Your task to perform on an android device: Go to Reddit.com Image 0: 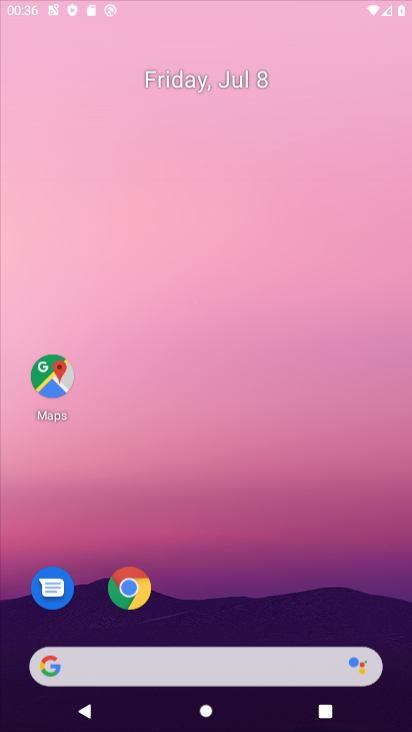
Step 0: click (393, 219)
Your task to perform on an android device: Go to Reddit.com Image 1: 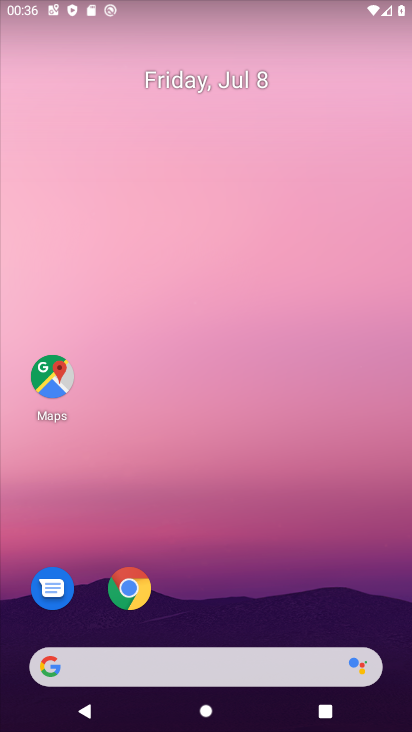
Step 1: drag from (186, 615) to (254, 129)
Your task to perform on an android device: Go to Reddit.com Image 2: 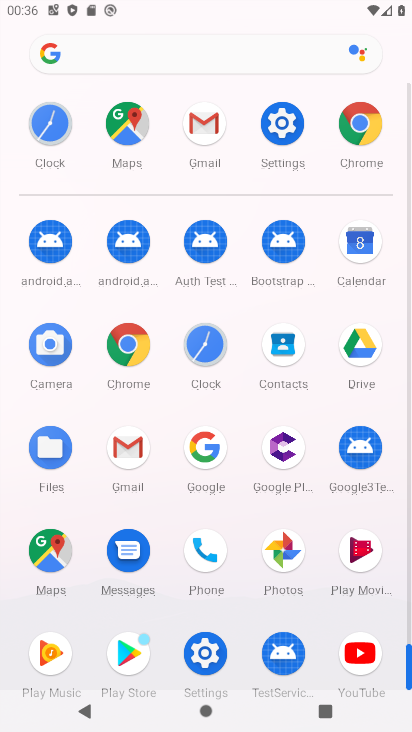
Step 2: click (360, 122)
Your task to perform on an android device: Go to Reddit.com Image 3: 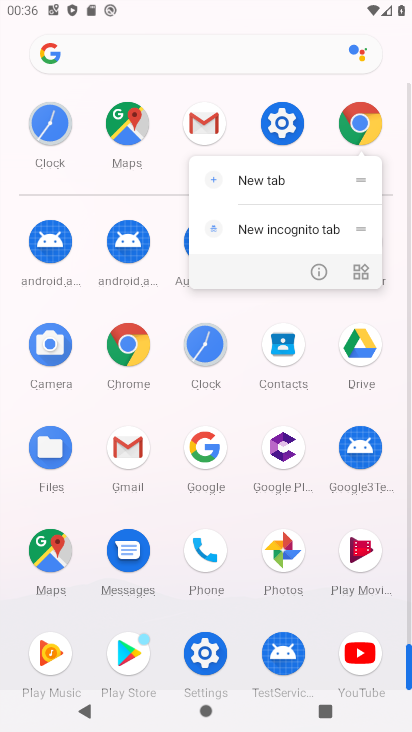
Step 3: click (316, 268)
Your task to perform on an android device: Go to Reddit.com Image 4: 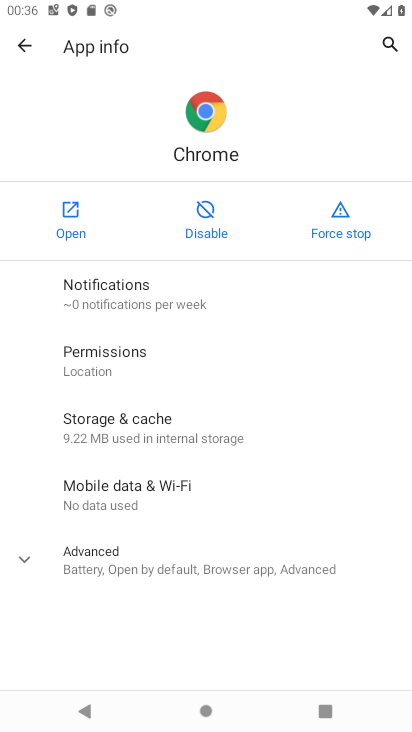
Step 4: click (72, 232)
Your task to perform on an android device: Go to Reddit.com Image 5: 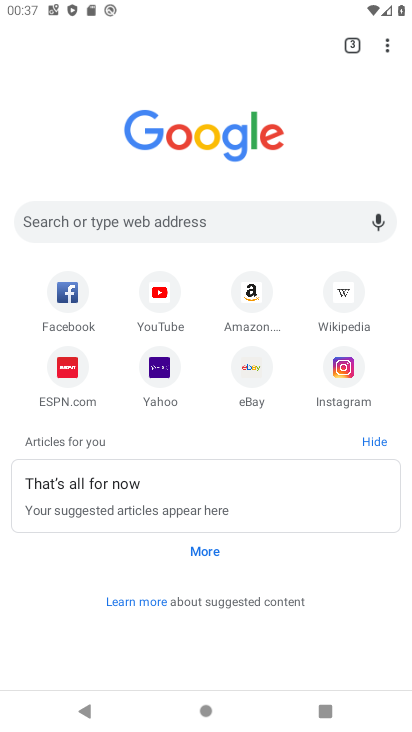
Step 5: click (131, 241)
Your task to perform on an android device: Go to Reddit.com Image 6: 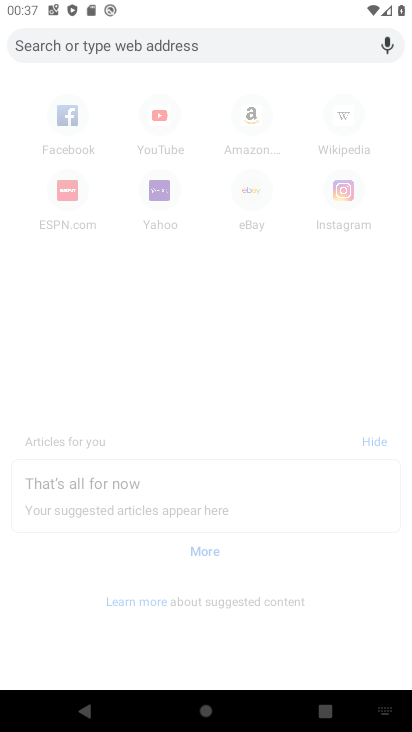
Step 6: type "Reddit.com"
Your task to perform on an android device: Go to Reddit.com Image 7: 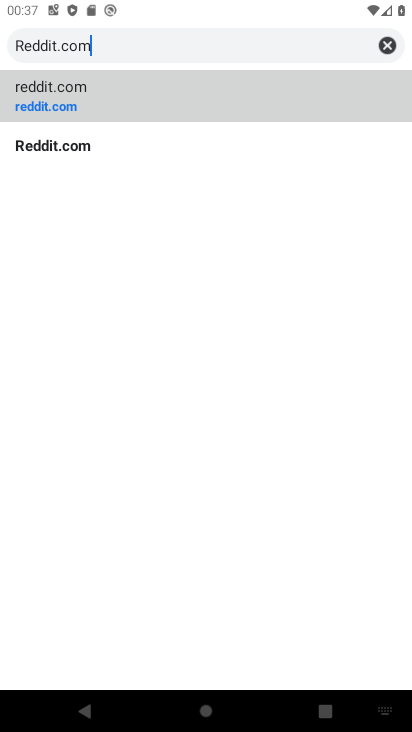
Step 7: type ""
Your task to perform on an android device: Go to Reddit.com Image 8: 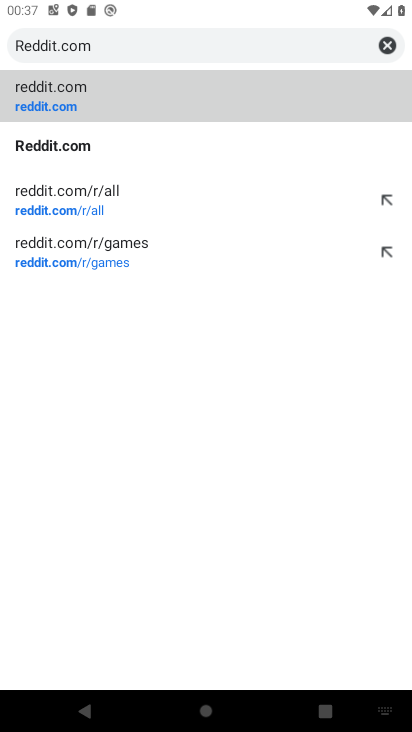
Step 8: click (25, 105)
Your task to perform on an android device: Go to Reddit.com Image 9: 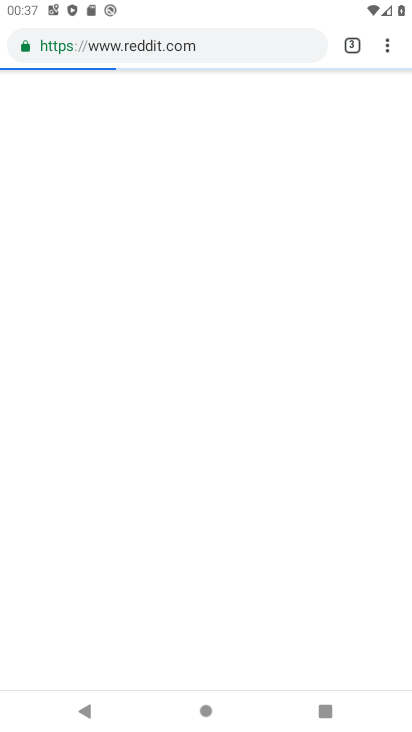
Step 9: task complete